Your task to perform on an android device: Open internet settings Image 0: 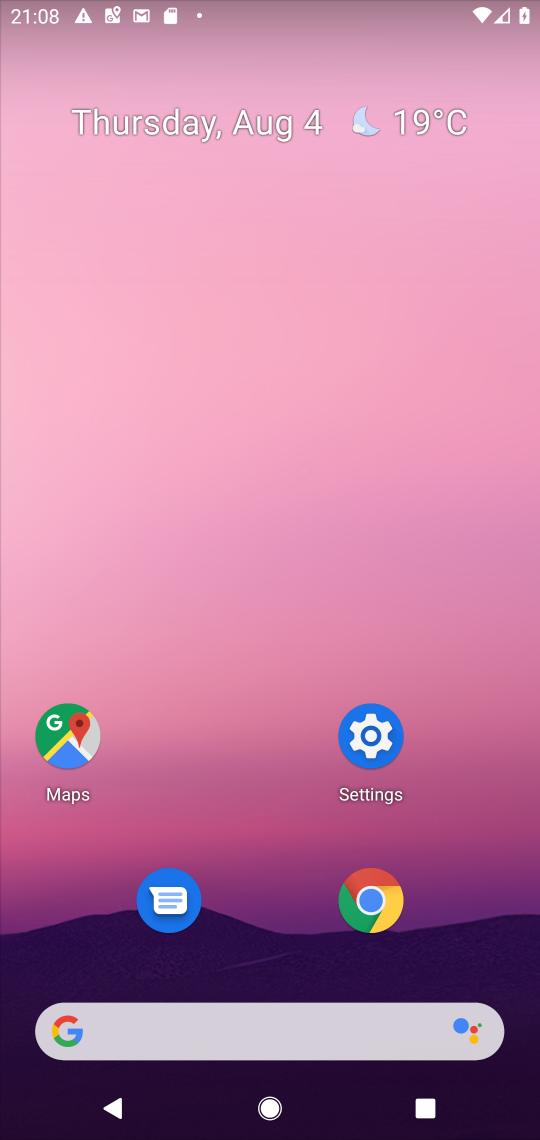
Step 0: click (370, 739)
Your task to perform on an android device: Open internet settings Image 1: 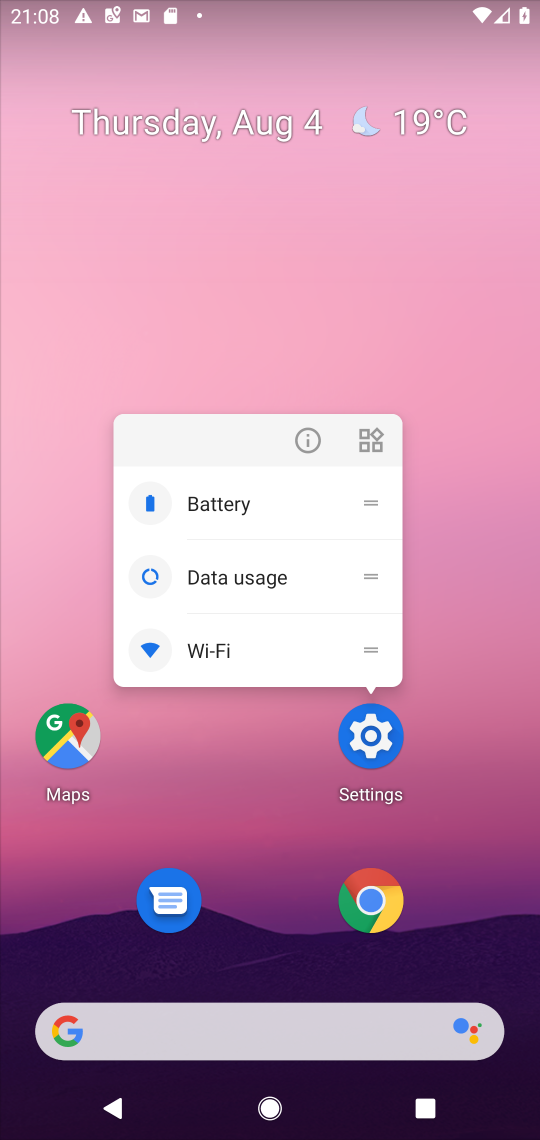
Step 1: click (370, 740)
Your task to perform on an android device: Open internet settings Image 2: 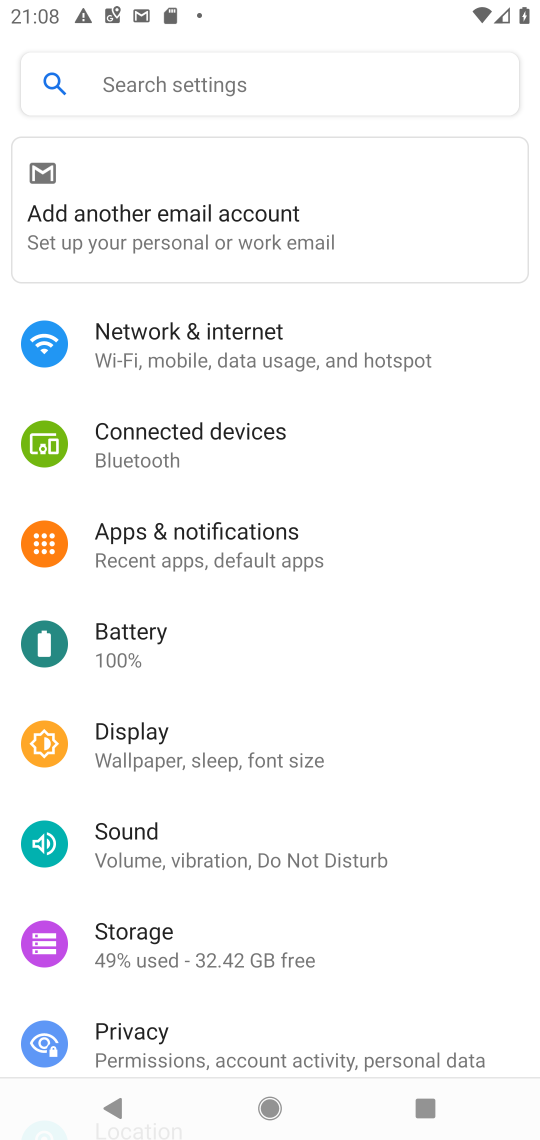
Step 2: click (203, 350)
Your task to perform on an android device: Open internet settings Image 3: 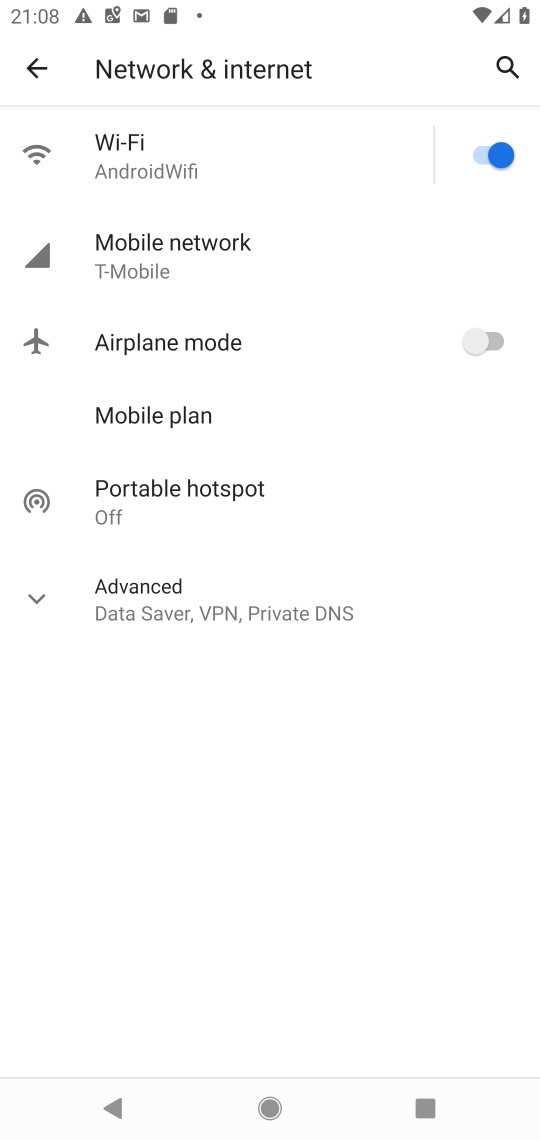
Step 3: click (128, 155)
Your task to perform on an android device: Open internet settings Image 4: 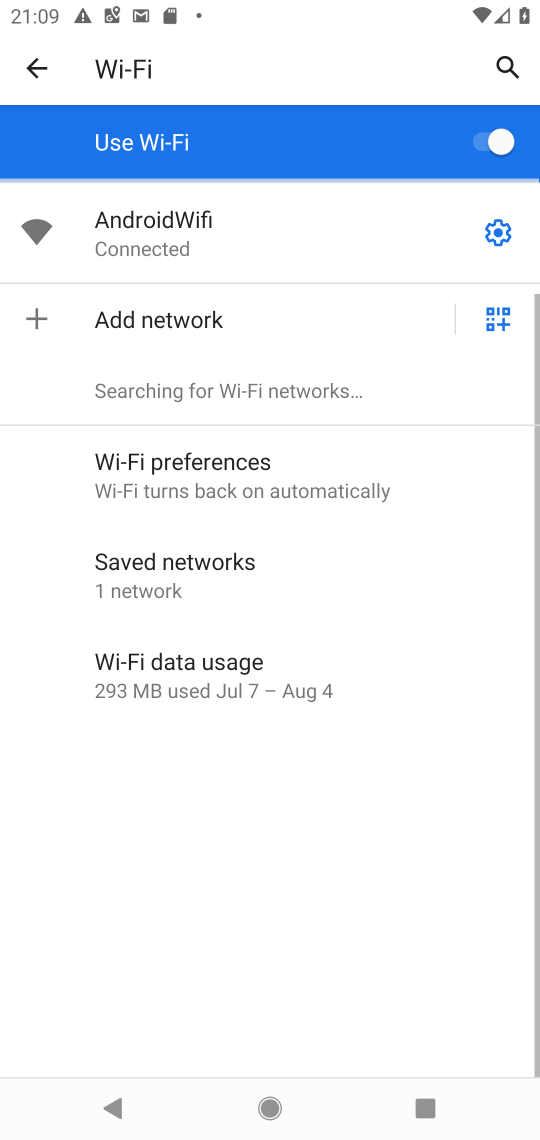
Step 4: task complete